Your task to perform on an android device: Check the weather Image 0: 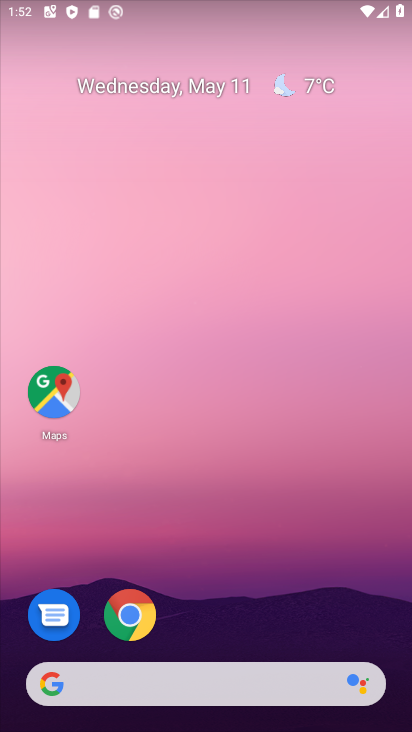
Step 0: click (328, 81)
Your task to perform on an android device: Check the weather Image 1: 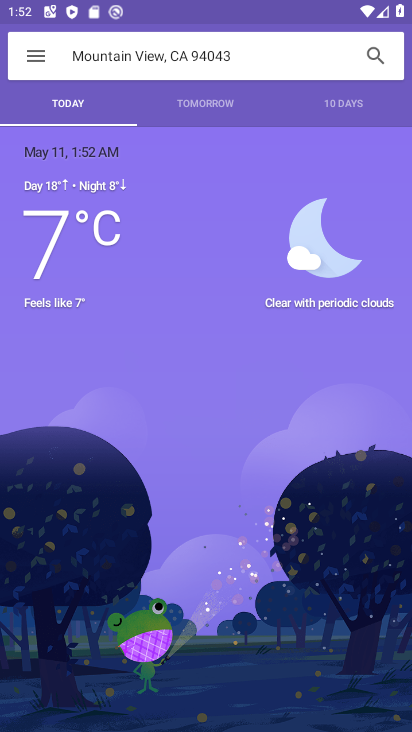
Step 1: task complete